Your task to perform on an android device: What's on my calendar tomorrow? Image 0: 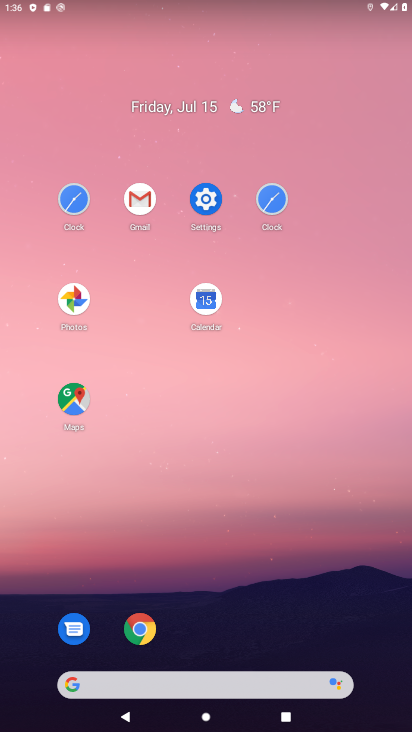
Step 0: click (209, 300)
Your task to perform on an android device: What's on my calendar tomorrow? Image 1: 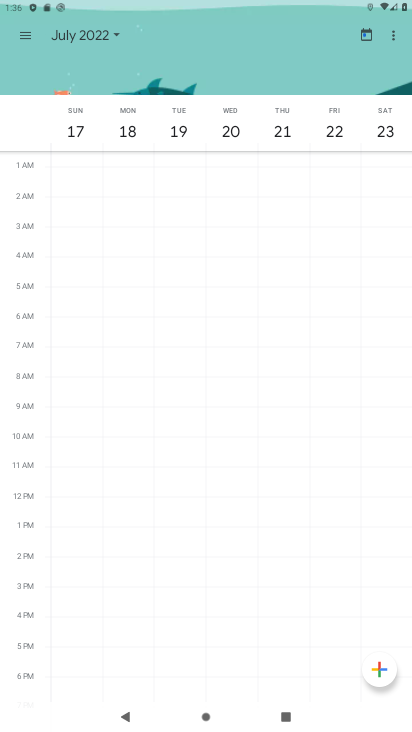
Step 1: drag from (66, 127) to (392, 146)
Your task to perform on an android device: What's on my calendar tomorrow? Image 2: 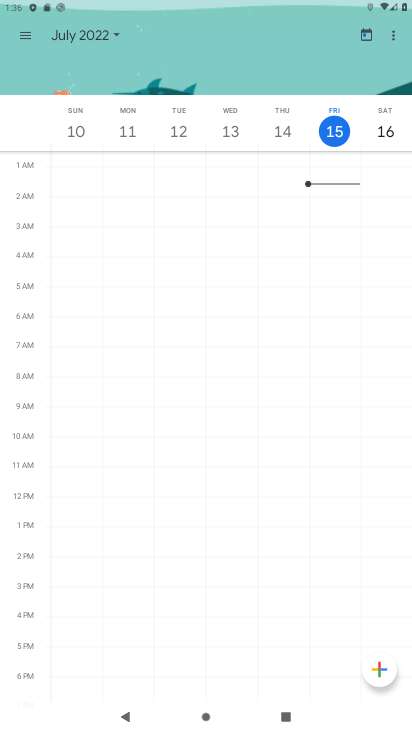
Step 2: click (386, 137)
Your task to perform on an android device: What's on my calendar tomorrow? Image 3: 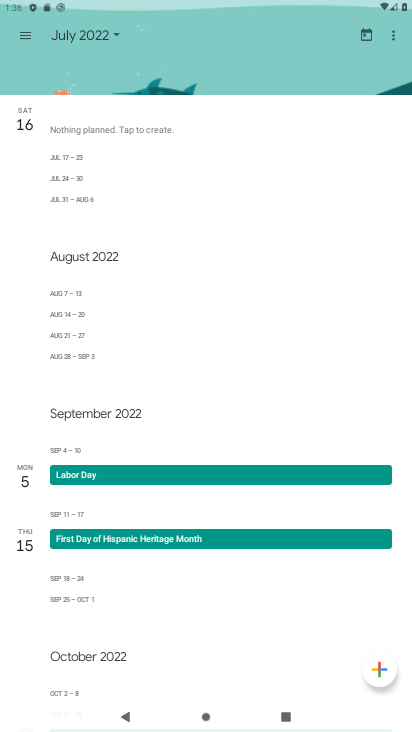
Step 3: task complete